Your task to perform on an android device: clear history in the chrome app Image 0: 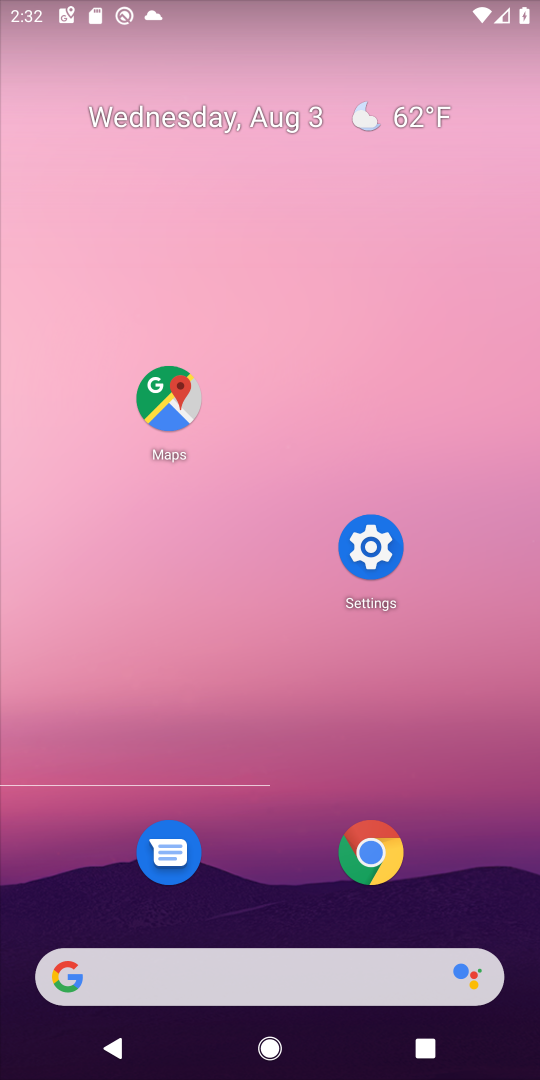
Step 0: press home button
Your task to perform on an android device: clear history in the chrome app Image 1: 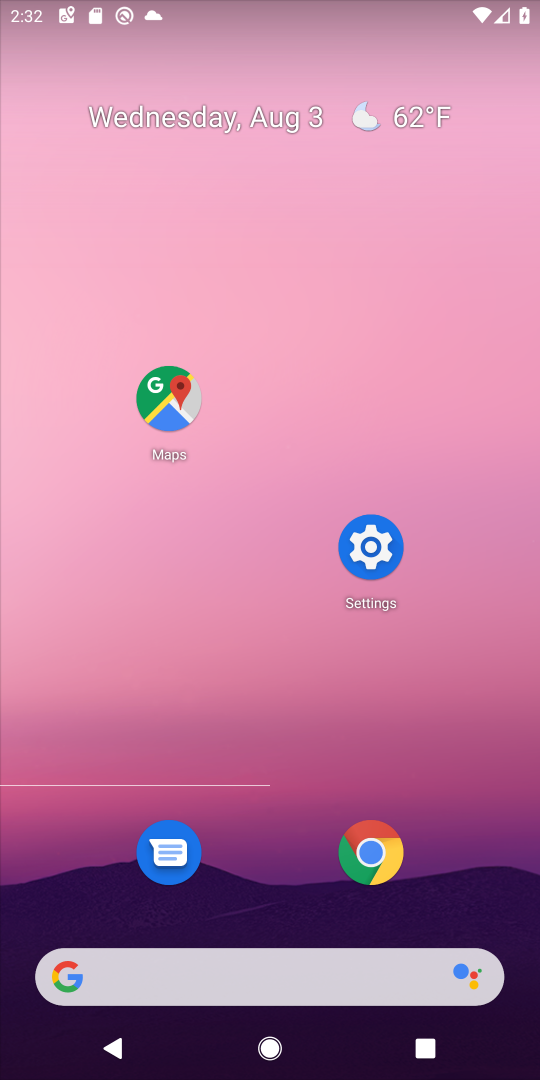
Step 1: click (361, 850)
Your task to perform on an android device: clear history in the chrome app Image 2: 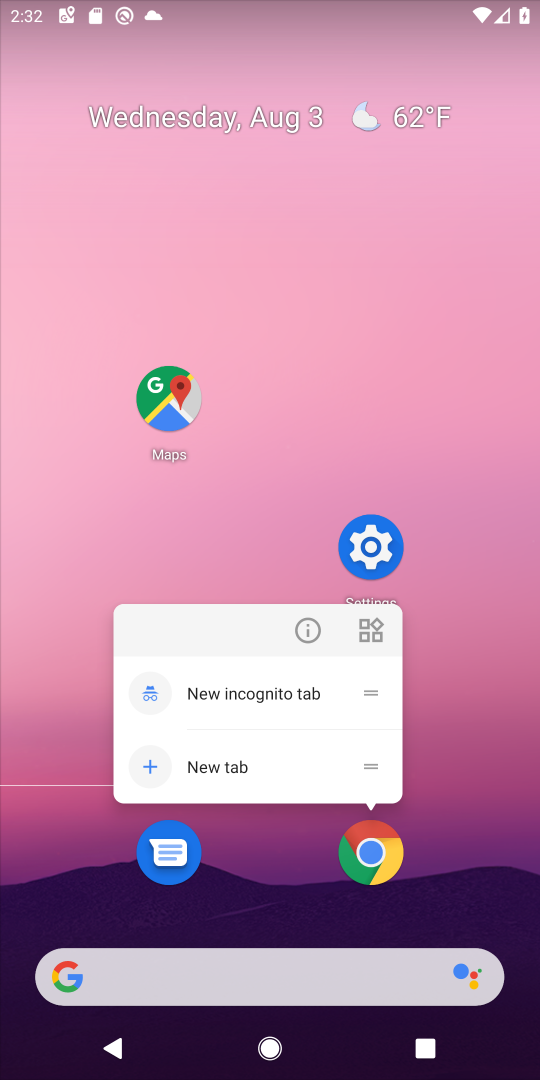
Step 2: click (361, 851)
Your task to perform on an android device: clear history in the chrome app Image 3: 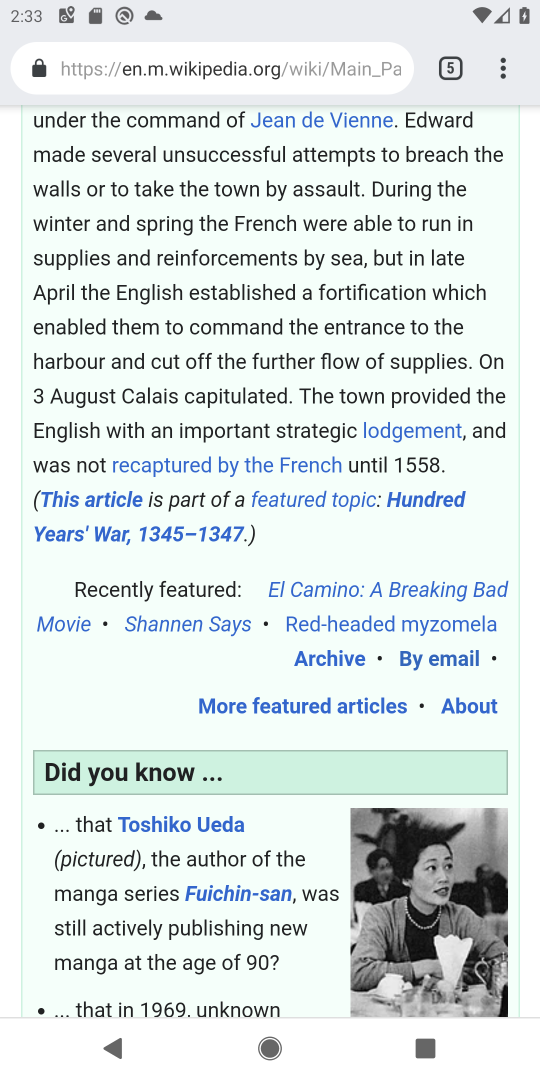
Step 3: drag from (503, 69) to (299, 896)
Your task to perform on an android device: clear history in the chrome app Image 4: 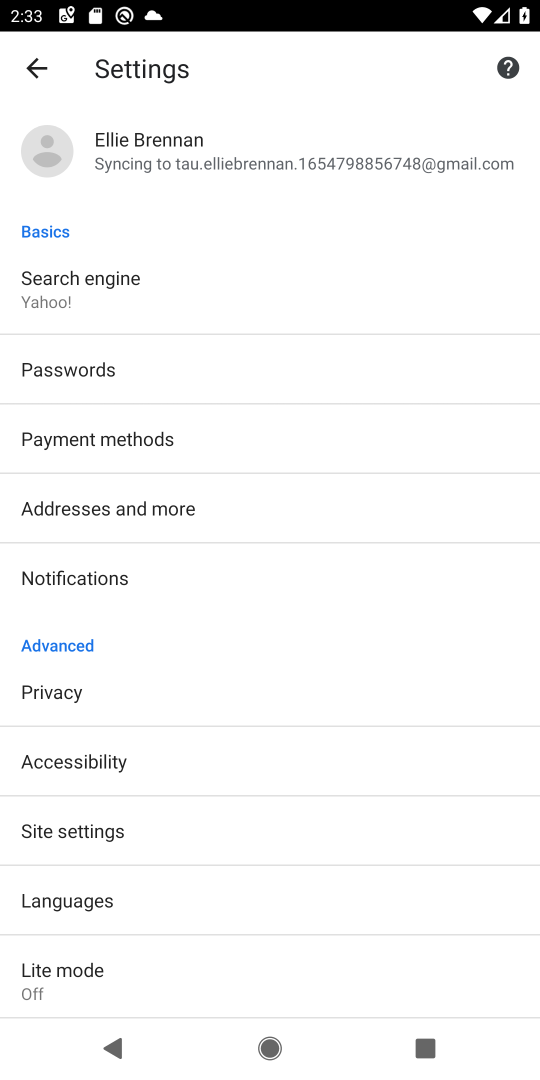
Step 4: click (78, 686)
Your task to perform on an android device: clear history in the chrome app Image 5: 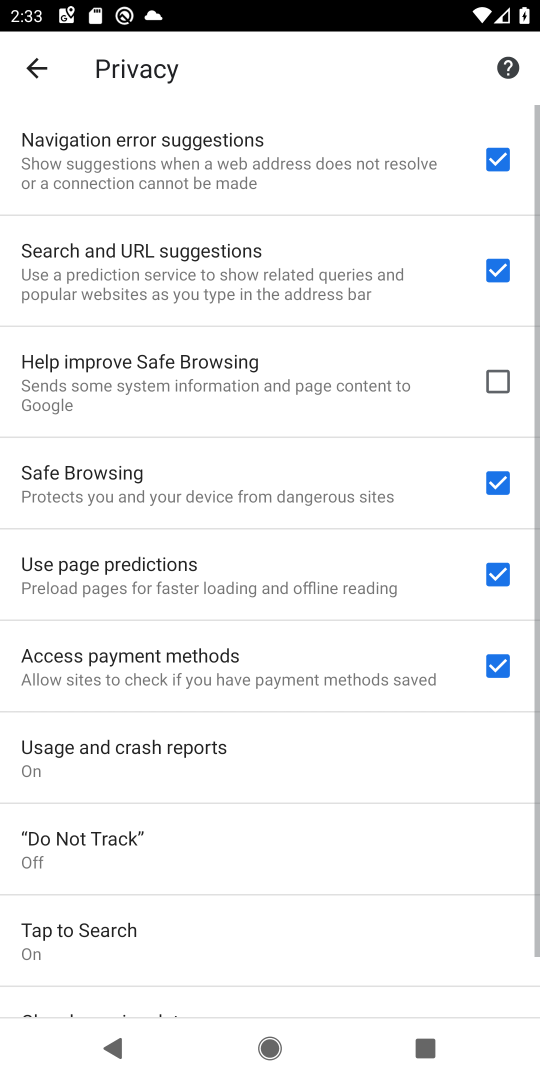
Step 5: drag from (177, 958) to (441, 74)
Your task to perform on an android device: clear history in the chrome app Image 6: 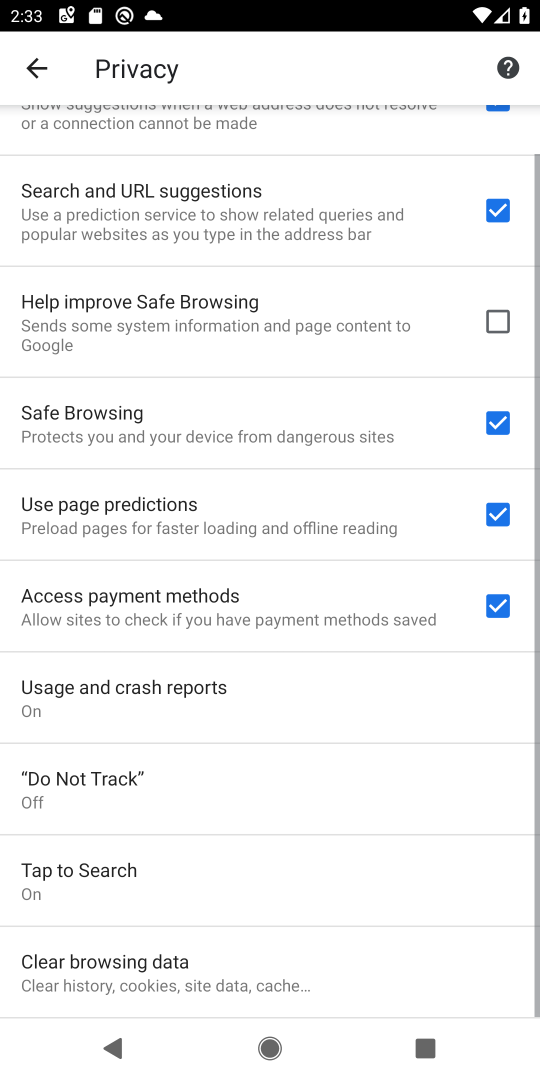
Step 6: click (159, 977)
Your task to perform on an android device: clear history in the chrome app Image 7: 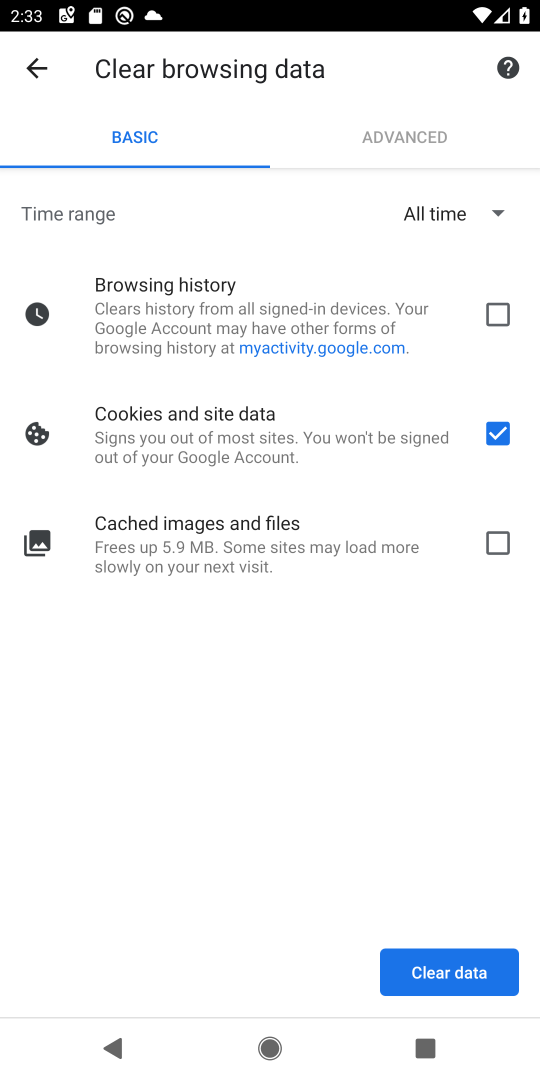
Step 7: click (497, 309)
Your task to perform on an android device: clear history in the chrome app Image 8: 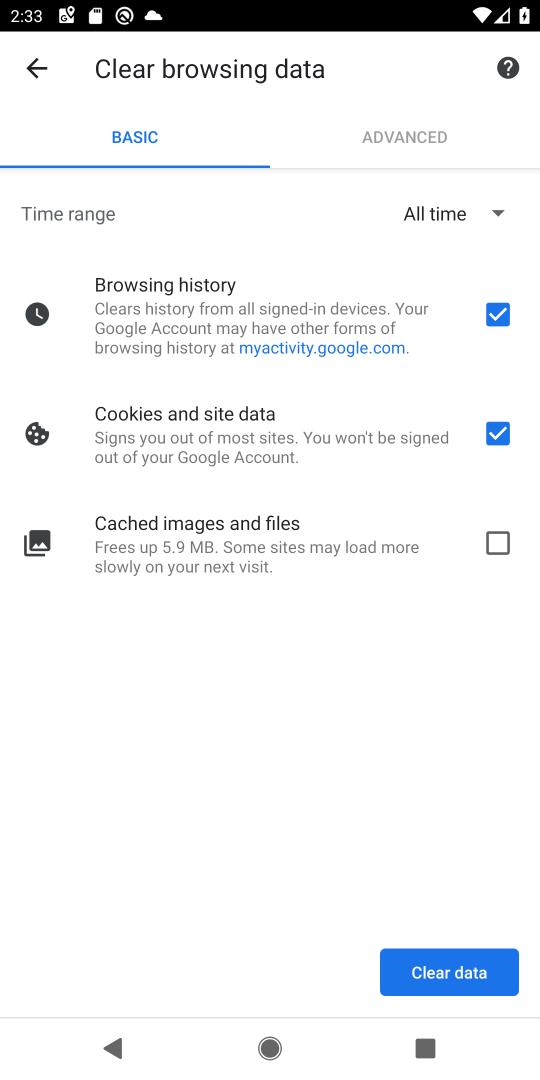
Step 8: click (501, 535)
Your task to perform on an android device: clear history in the chrome app Image 9: 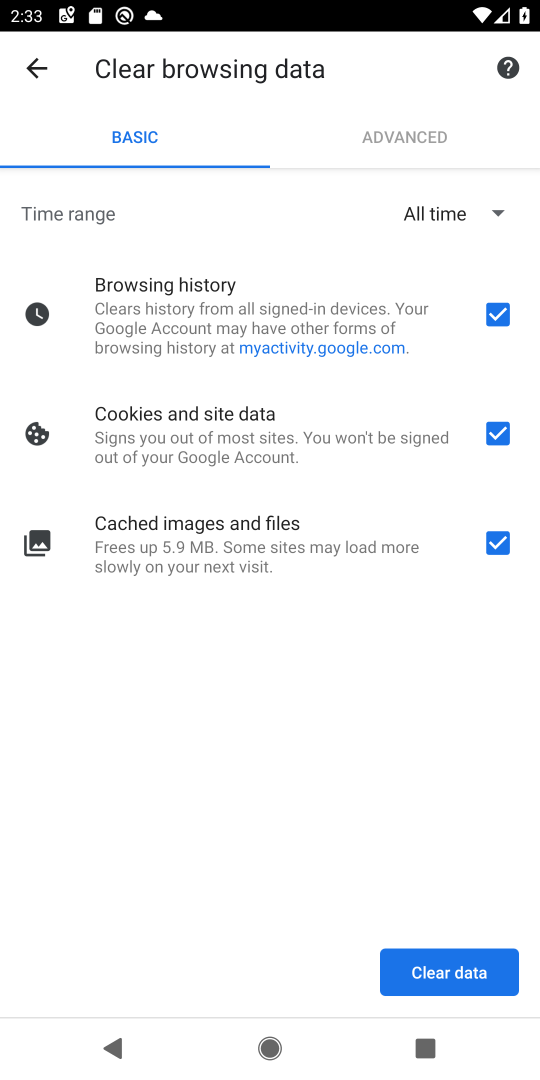
Step 9: click (440, 993)
Your task to perform on an android device: clear history in the chrome app Image 10: 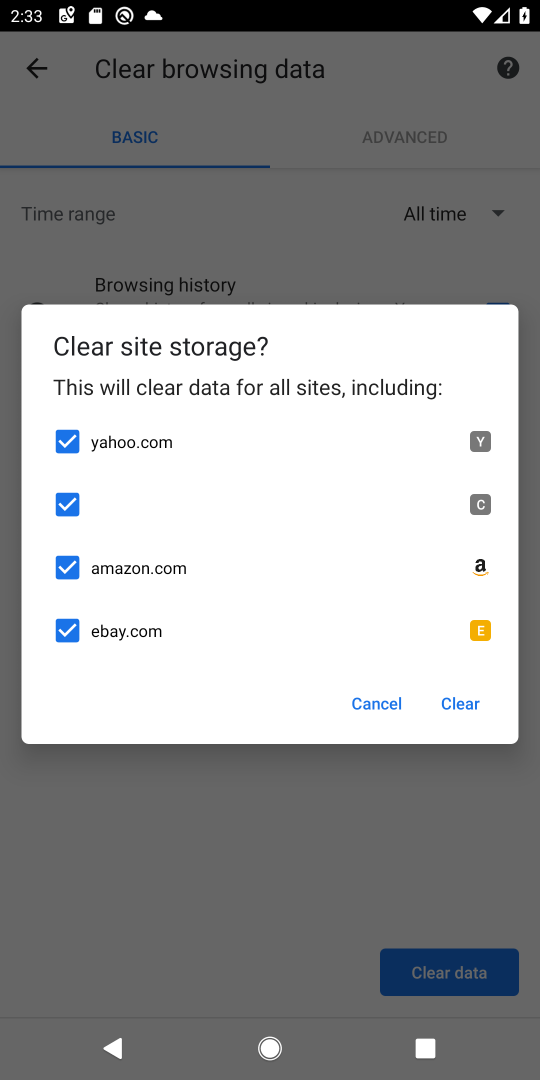
Step 10: click (467, 694)
Your task to perform on an android device: clear history in the chrome app Image 11: 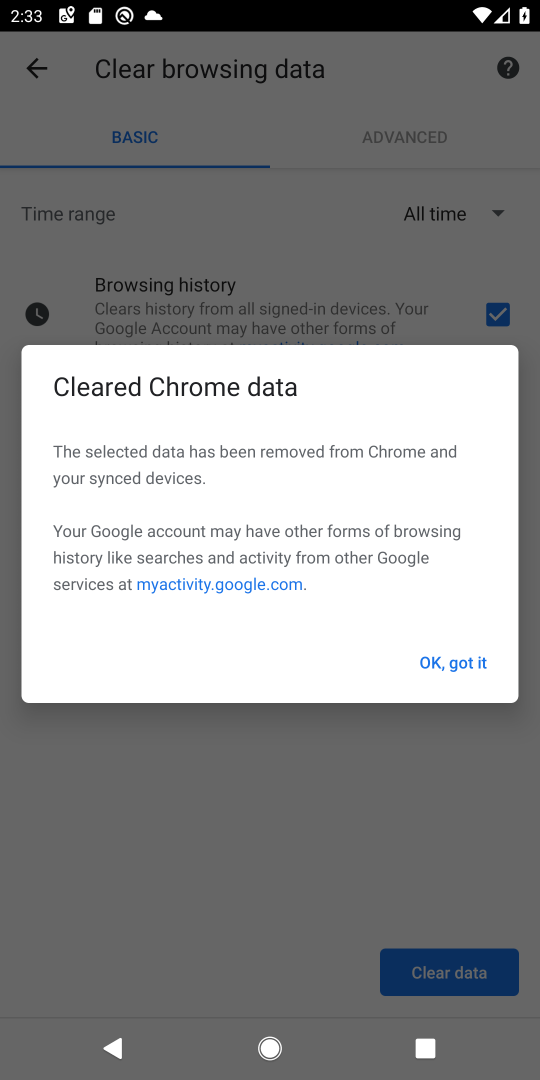
Step 11: click (465, 655)
Your task to perform on an android device: clear history in the chrome app Image 12: 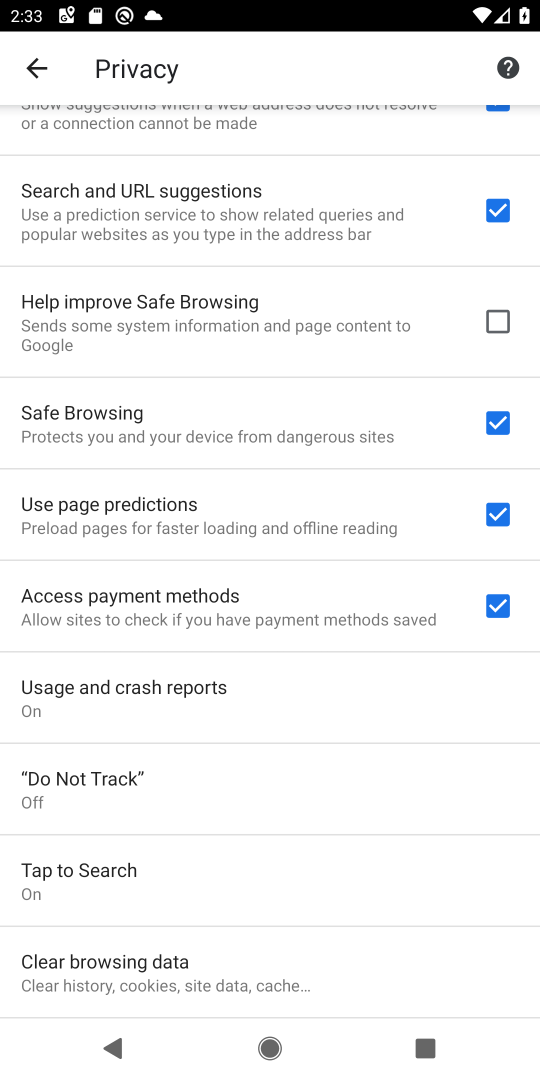
Step 12: task complete